Your task to perform on an android device: turn on location history Image 0: 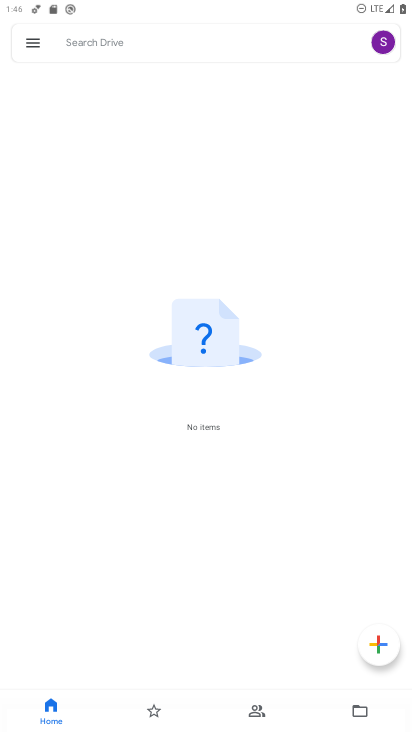
Step 0: press home button
Your task to perform on an android device: turn on location history Image 1: 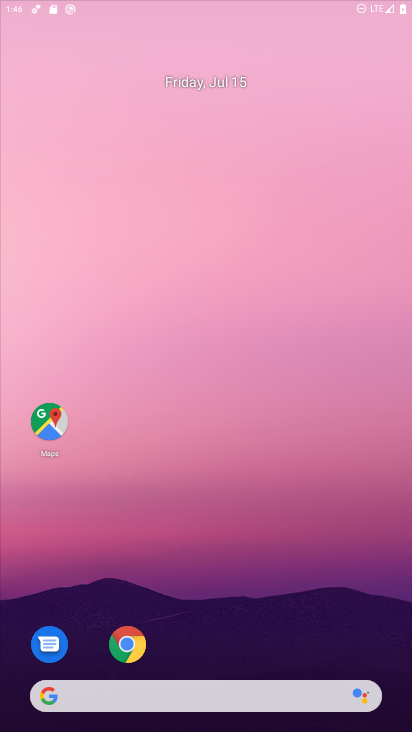
Step 1: drag from (74, 383) to (213, 138)
Your task to perform on an android device: turn on location history Image 2: 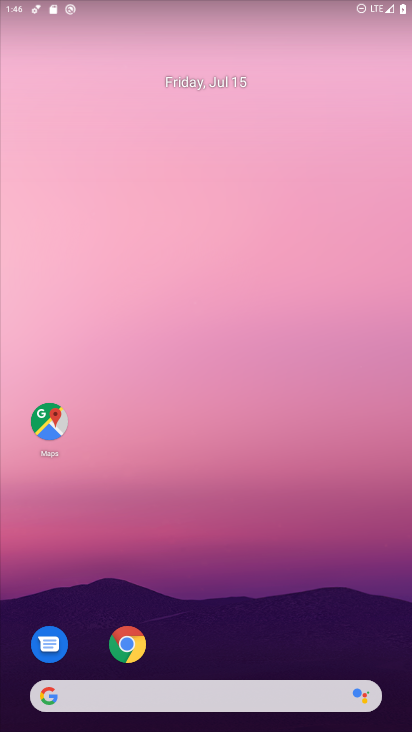
Step 2: drag from (92, 476) to (367, 81)
Your task to perform on an android device: turn on location history Image 3: 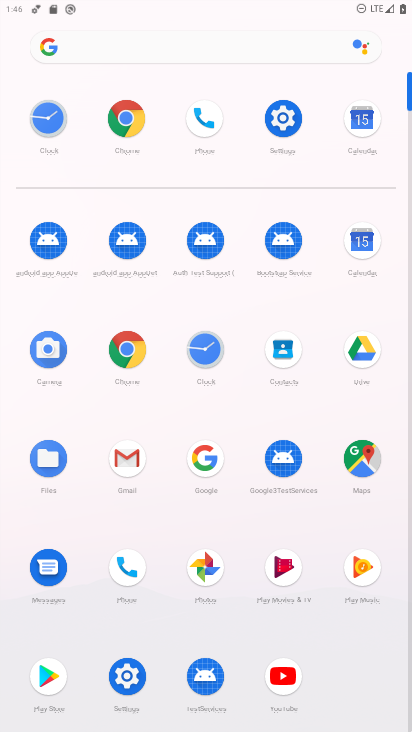
Step 3: click (285, 122)
Your task to perform on an android device: turn on location history Image 4: 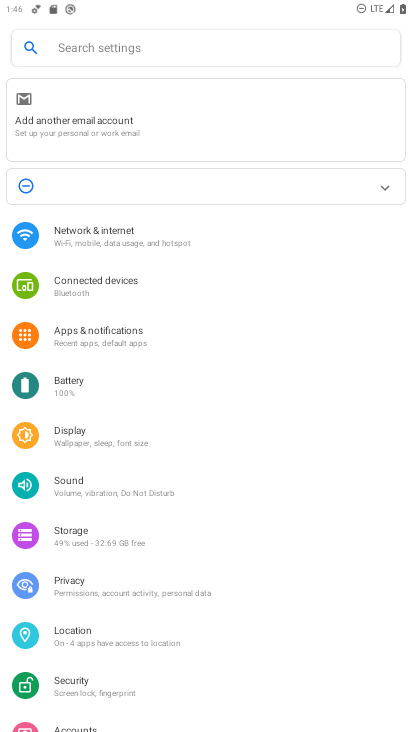
Step 4: click (101, 647)
Your task to perform on an android device: turn on location history Image 5: 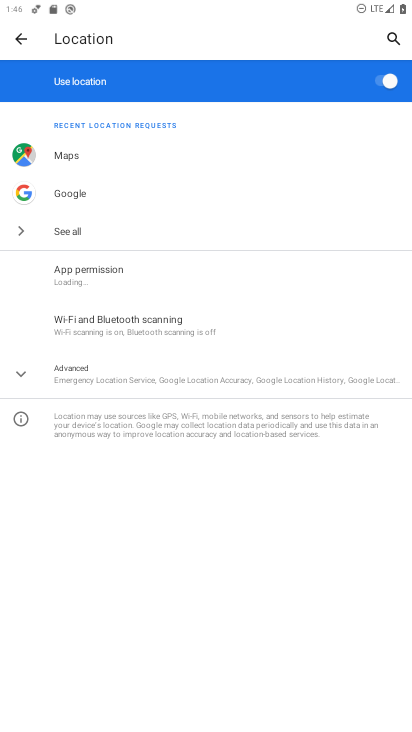
Step 5: click (84, 365)
Your task to perform on an android device: turn on location history Image 6: 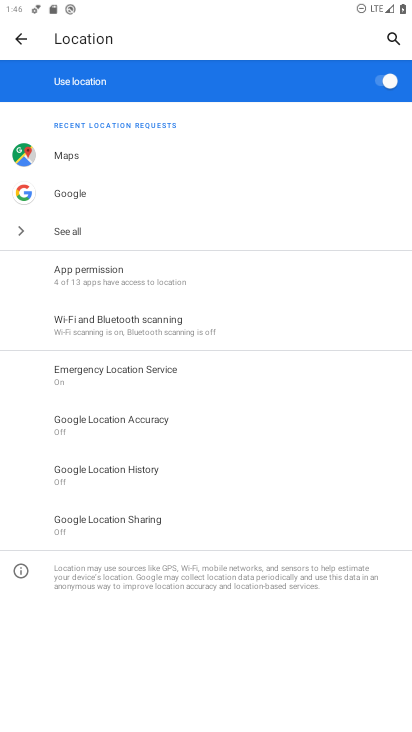
Step 6: click (110, 473)
Your task to perform on an android device: turn on location history Image 7: 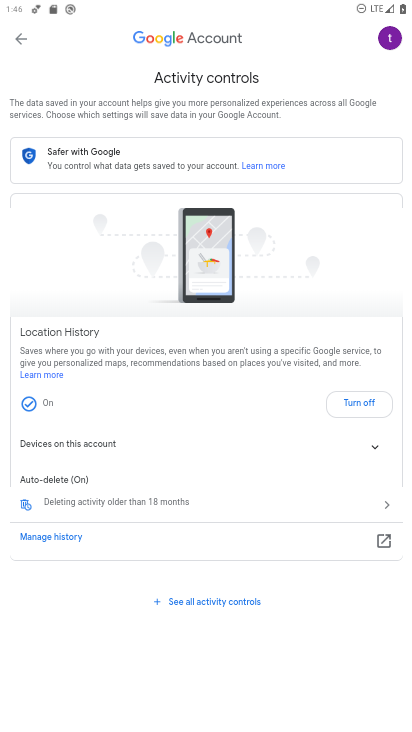
Step 7: click (376, 406)
Your task to perform on an android device: turn on location history Image 8: 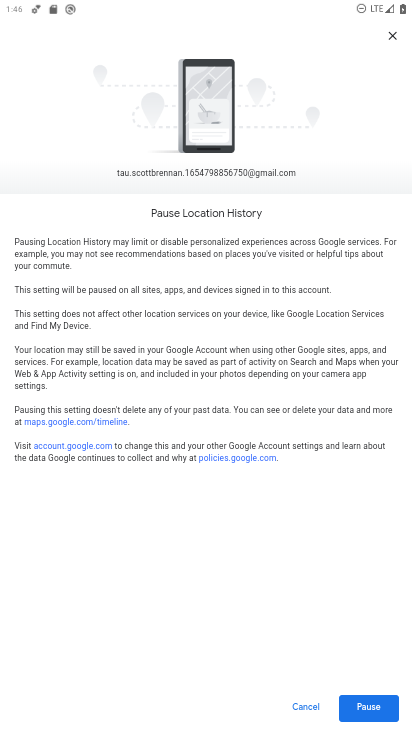
Step 8: click (346, 721)
Your task to perform on an android device: turn on location history Image 9: 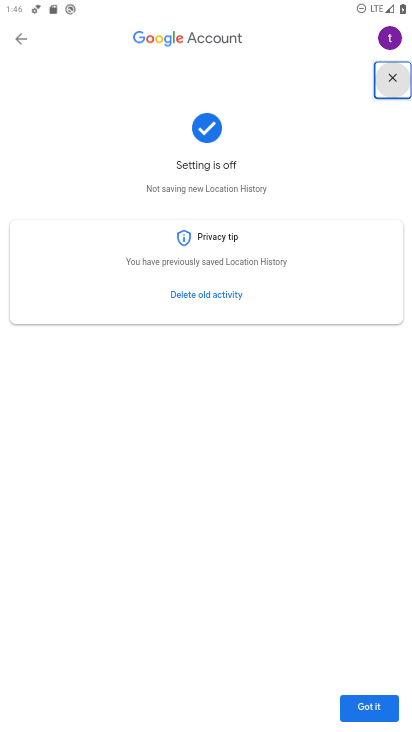
Step 9: task complete